Your task to perform on an android device: turn off location history Image 0: 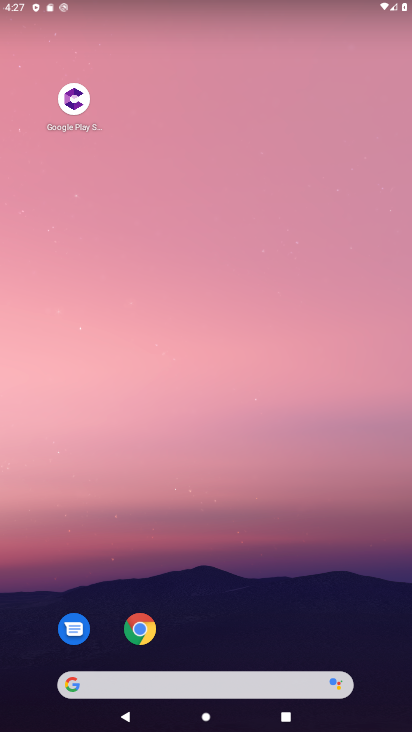
Step 0: drag from (251, 543) to (236, 263)
Your task to perform on an android device: turn off location history Image 1: 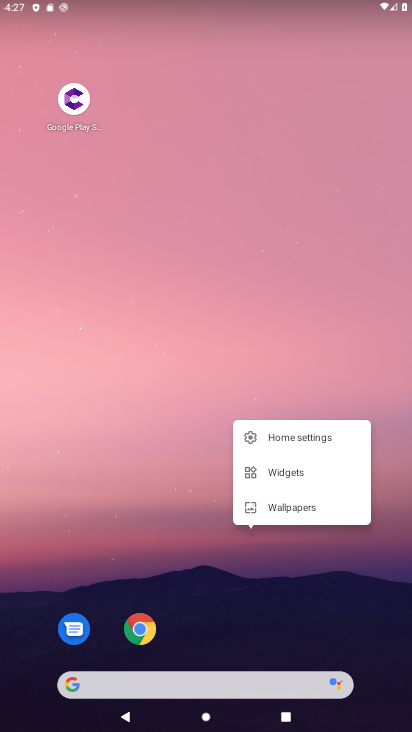
Step 1: click (212, 304)
Your task to perform on an android device: turn off location history Image 2: 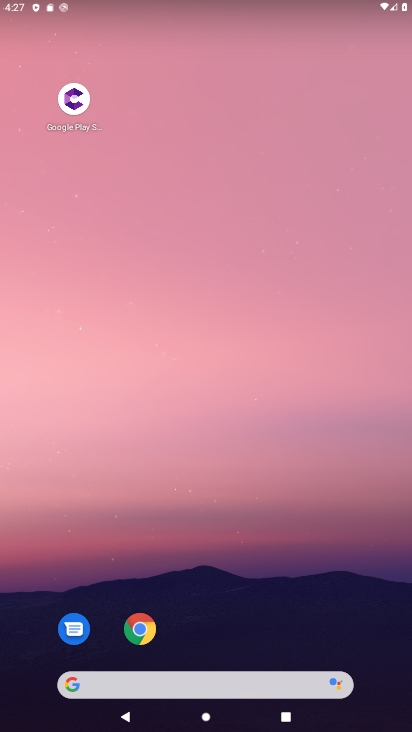
Step 2: drag from (284, 581) to (260, 352)
Your task to perform on an android device: turn off location history Image 3: 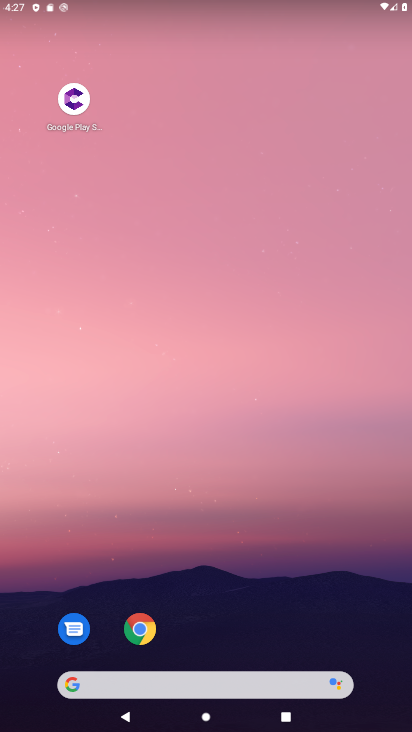
Step 3: drag from (284, 511) to (312, 135)
Your task to perform on an android device: turn off location history Image 4: 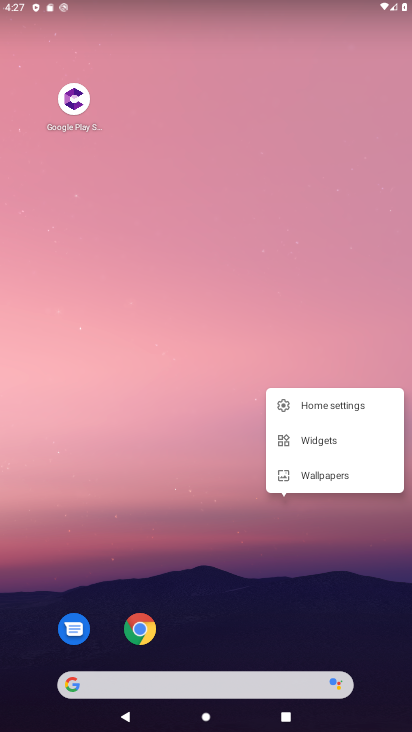
Step 4: click (228, 537)
Your task to perform on an android device: turn off location history Image 5: 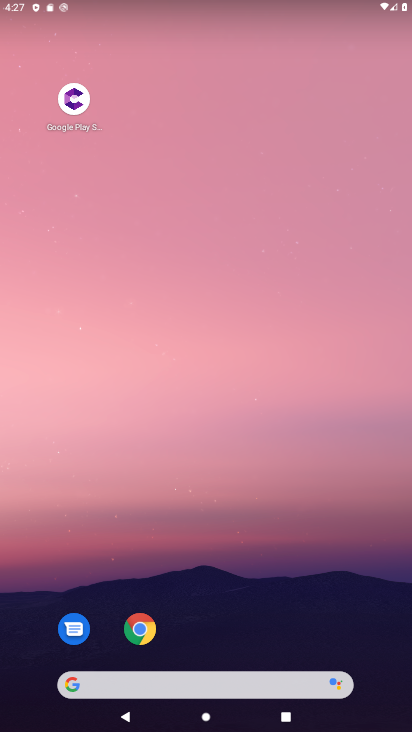
Step 5: drag from (228, 537) to (220, 170)
Your task to perform on an android device: turn off location history Image 6: 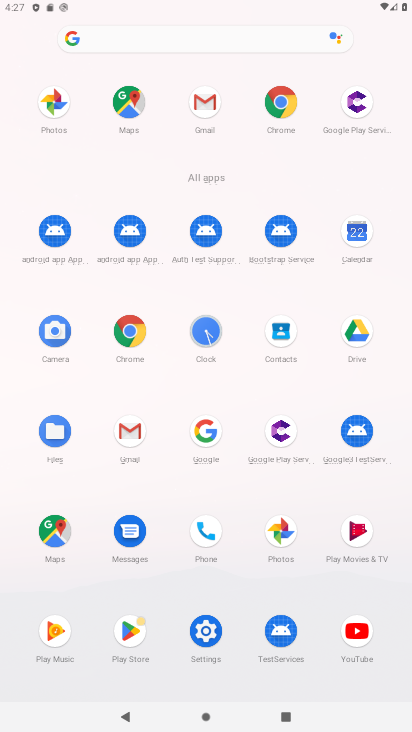
Step 6: click (202, 632)
Your task to perform on an android device: turn off location history Image 7: 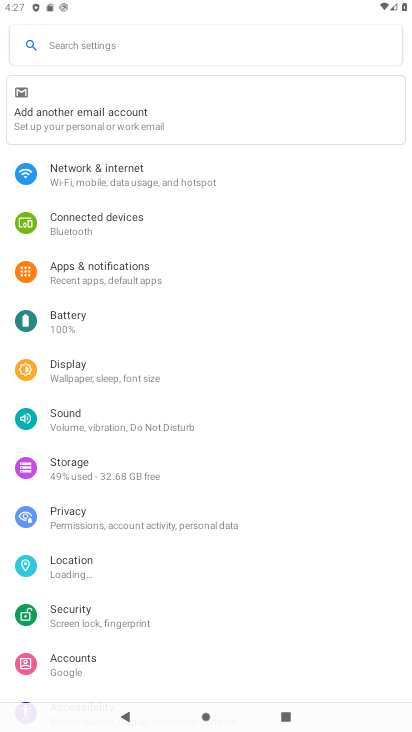
Step 7: click (94, 569)
Your task to perform on an android device: turn off location history Image 8: 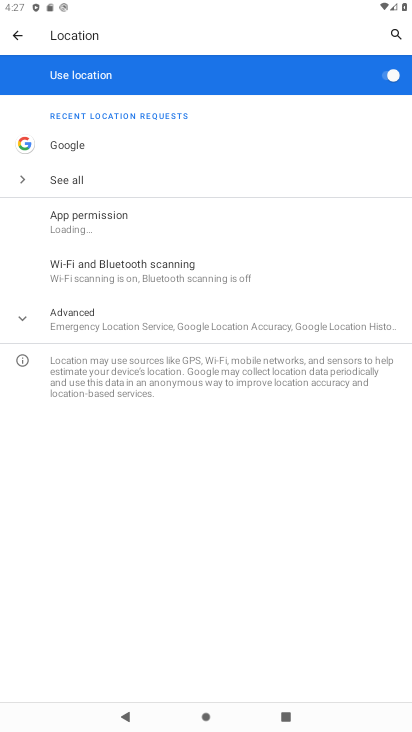
Step 8: click (388, 74)
Your task to perform on an android device: turn off location history Image 9: 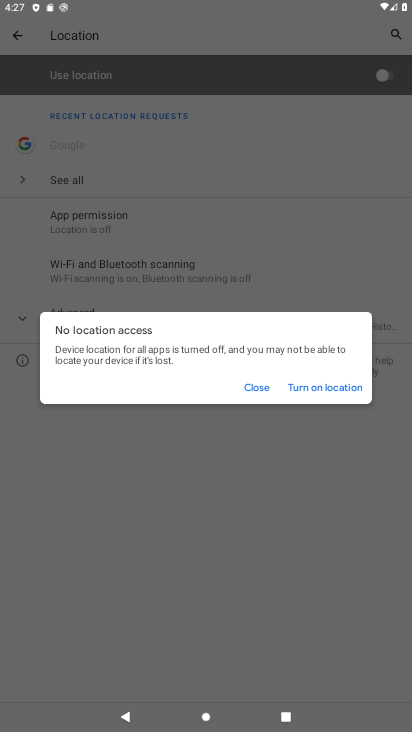
Step 9: task complete